Your task to perform on an android device: Open calendar and show me the first week of next month Image 0: 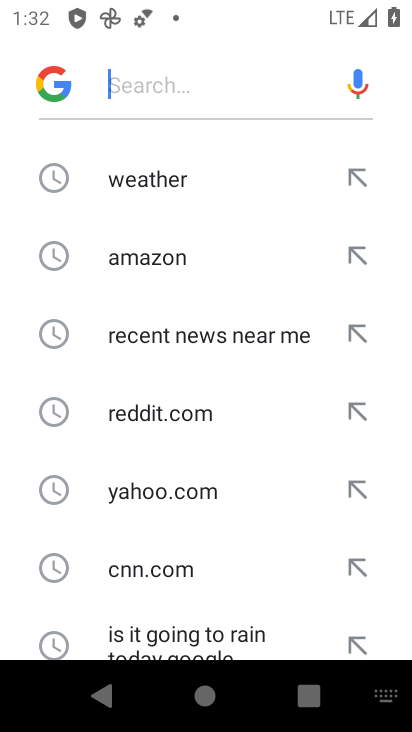
Step 0: press home button
Your task to perform on an android device: Open calendar and show me the first week of next month Image 1: 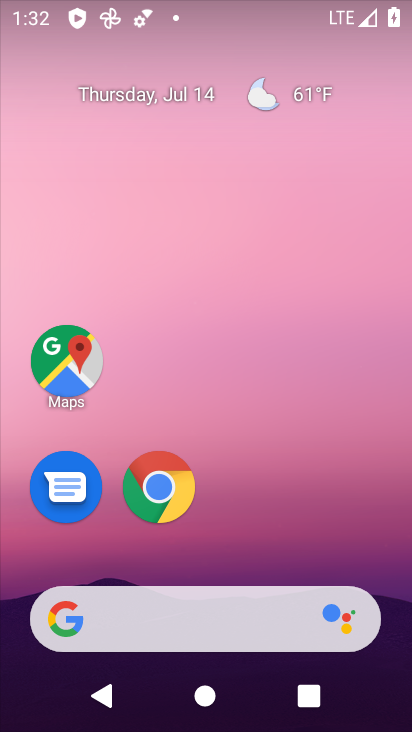
Step 1: drag from (361, 524) to (349, 253)
Your task to perform on an android device: Open calendar and show me the first week of next month Image 2: 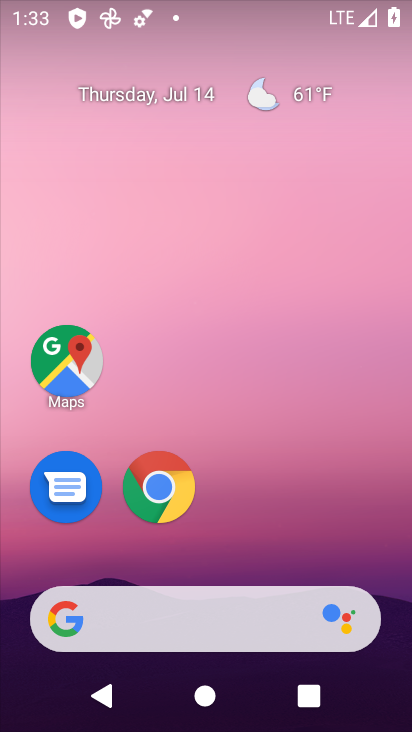
Step 2: drag from (362, 539) to (371, 207)
Your task to perform on an android device: Open calendar and show me the first week of next month Image 3: 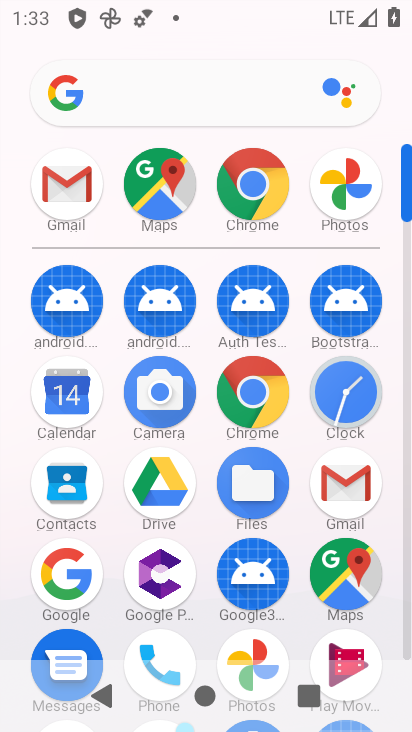
Step 3: drag from (388, 545) to (401, 252)
Your task to perform on an android device: Open calendar and show me the first week of next month Image 4: 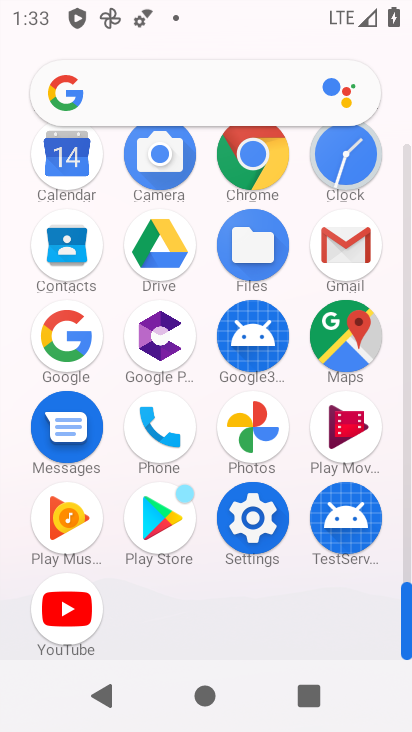
Step 4: click (68, 161)
Your task to perform on an android device: Open calendar and show me the first week of next month Image 5: 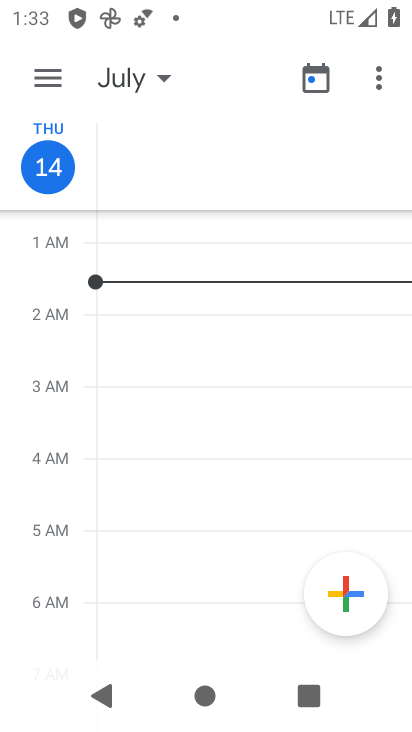
Step 5: drag from (240, 474) to (245, 350)
Your task to perform on an android device: Open calendar and show me the first week of next month Image 6: 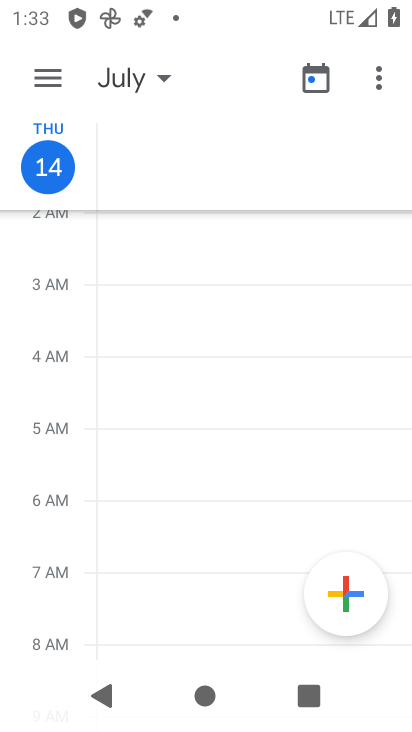
Step 6: click (166, 80)
Your task to perform on an android device: Open calendar and show me the first week of next month Image 7: 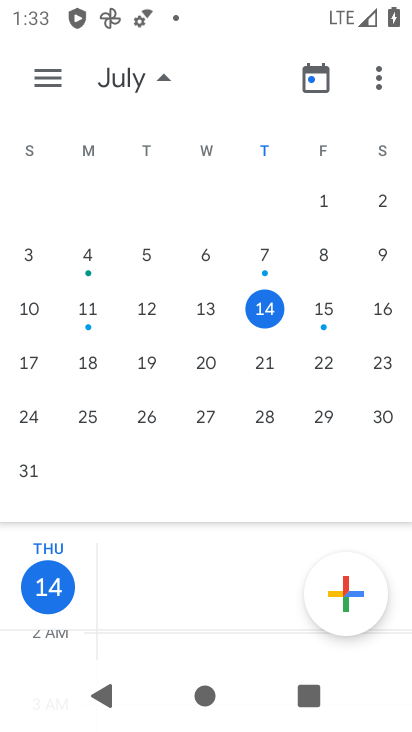
Step 7: task complete